Your task to perform on an android device: Go to Google Image 0: 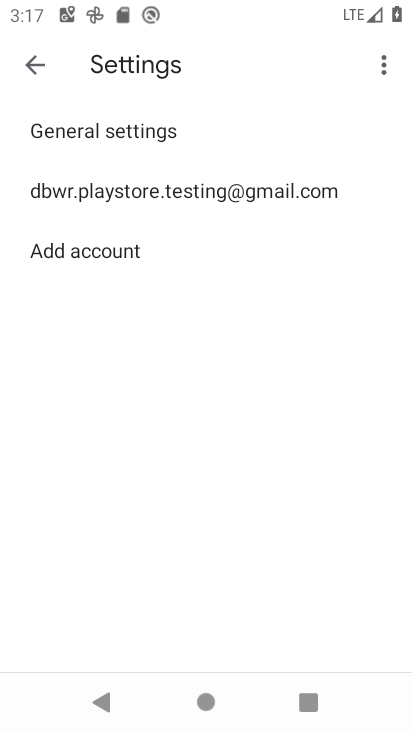
Step 0: drag from (327, 555) to (340, 316)
Your task to perform on an android device: Go to Google Image 1: 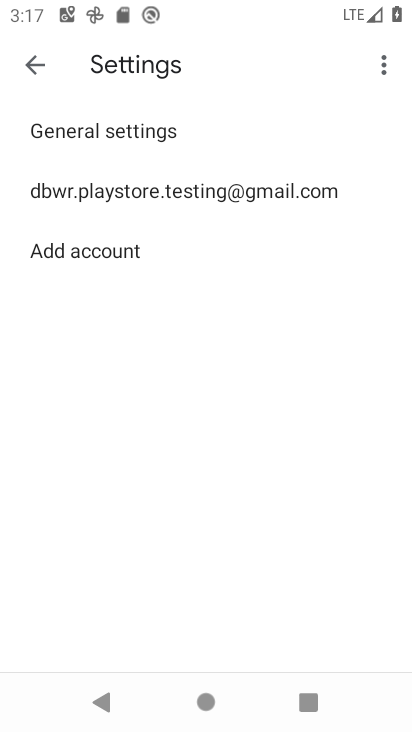
Step 1: press home button
Your task to perform on an android device: Go to Google Image 2: 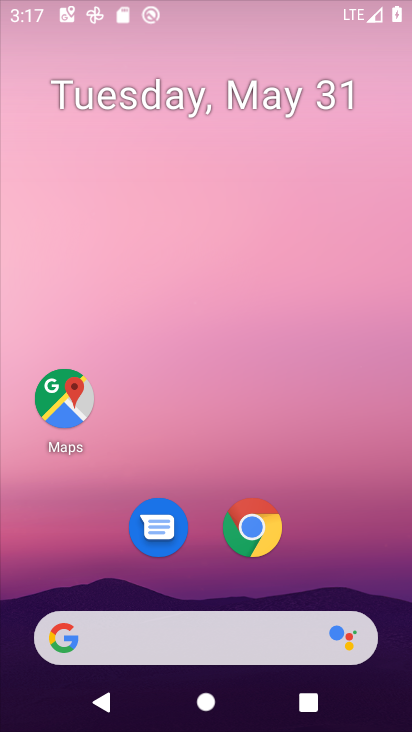
Step 2: drag from (386, 535) to (397, 63)
Your task to perform on an android device: Go to Google Image 3: 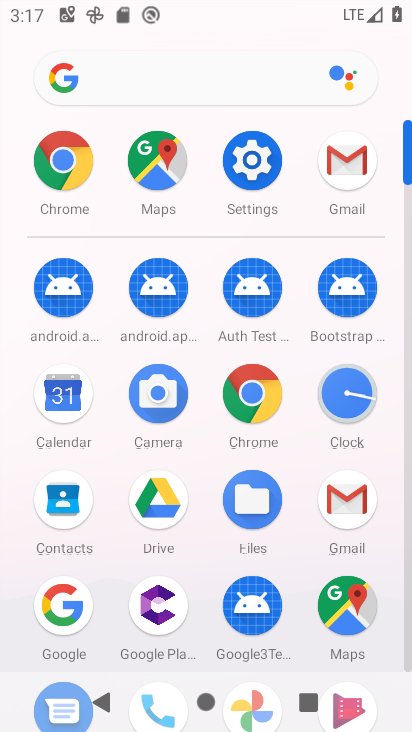
Step 3: click (52, 613)
Your task to perform on an android device: Go to Google Image 4: 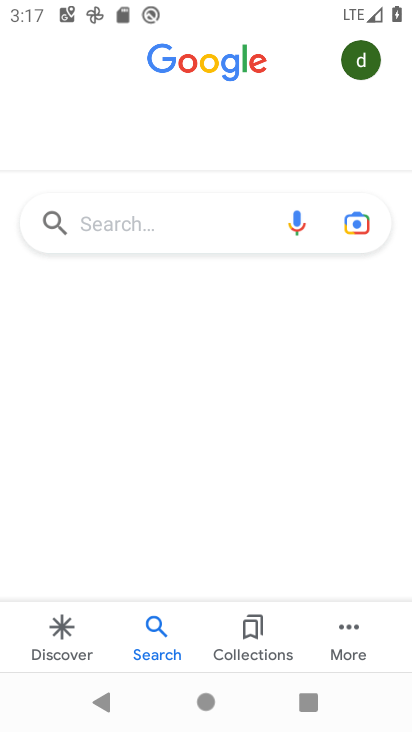
Step 4: task complete